Your task to perform on an android device: See recent photos Image 0: 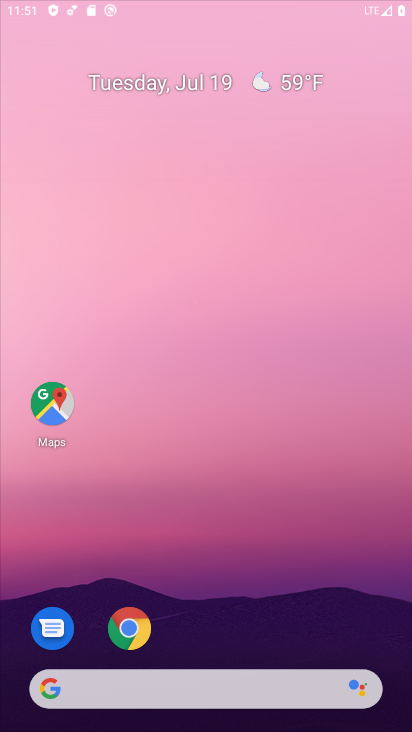
Step 0: press home button
Your task to perform on an android device: See recent photos Image 1: 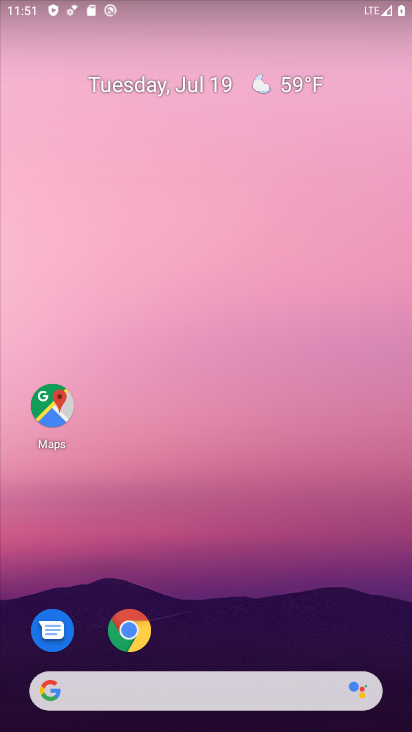
Step 1: drag from (232, 723) to (236, 233)
Your task to perform on an android device: See recent photos Image 2: 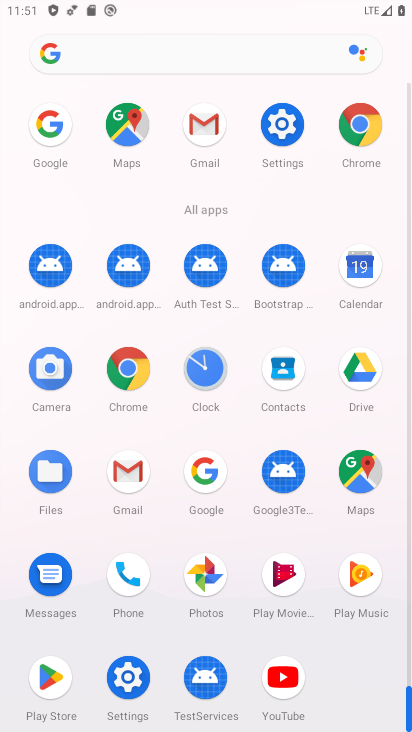
Step 2: click (208, 587)
Your task to perform on an android device: See recent photos Image 3: 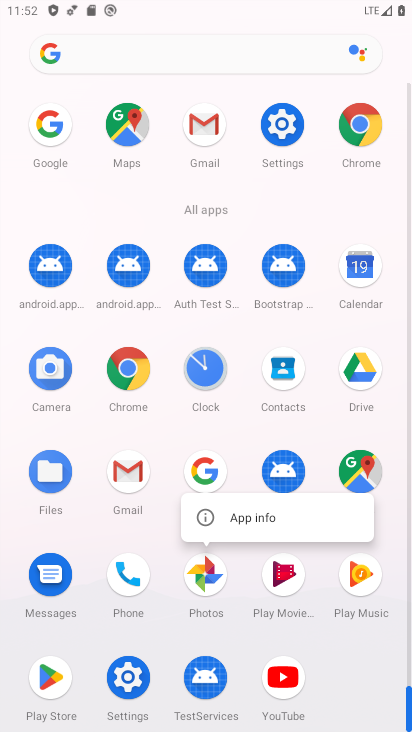
Step 3: click (199, 607)
Your task to perform on an android device: See recent photos Image 4: 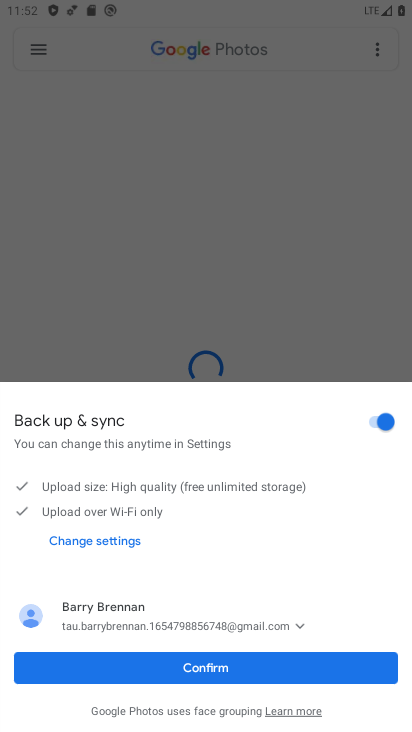
Step 4: click (238, 673)
Your task to perform on an android device: See recent photos Image 5: 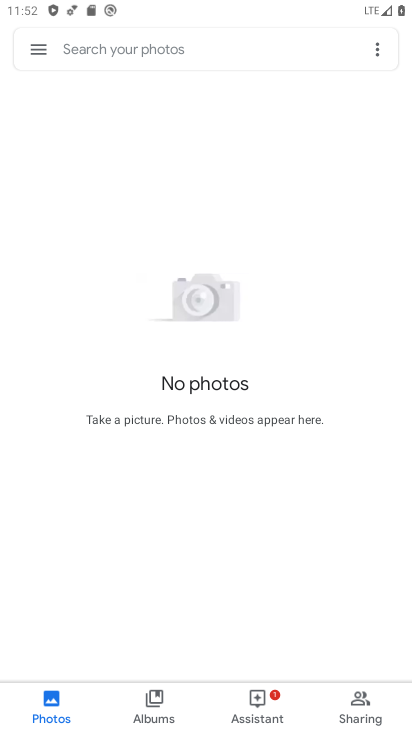
Step 5: task complete